Your task to perform on an android device: Do I have any events this weekend? Image 0: 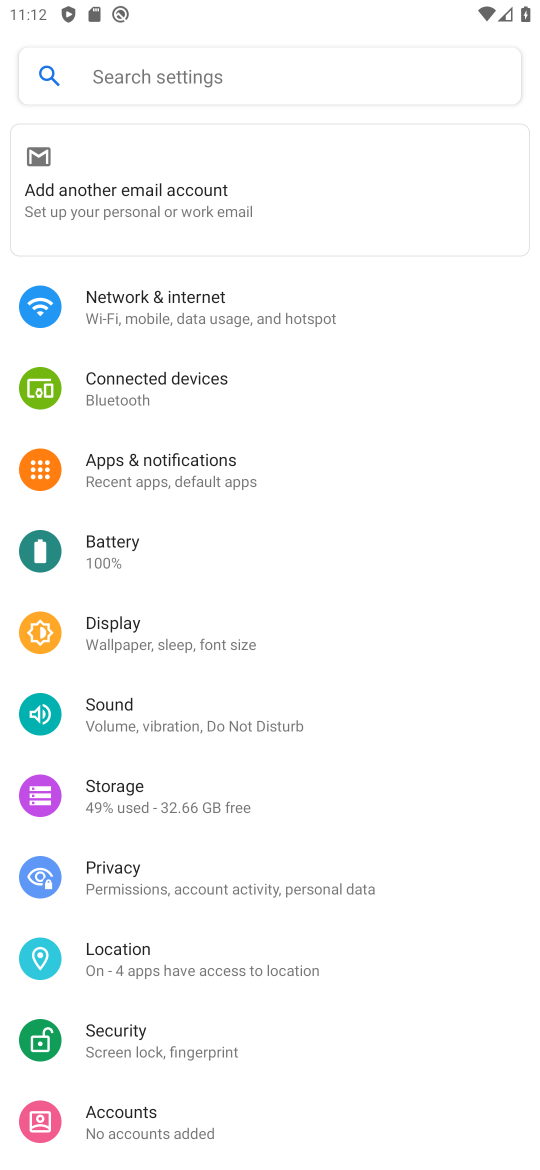
Step 0: press home button
Your task to perform on an android device: Do I have any events this weekend? Image 1: 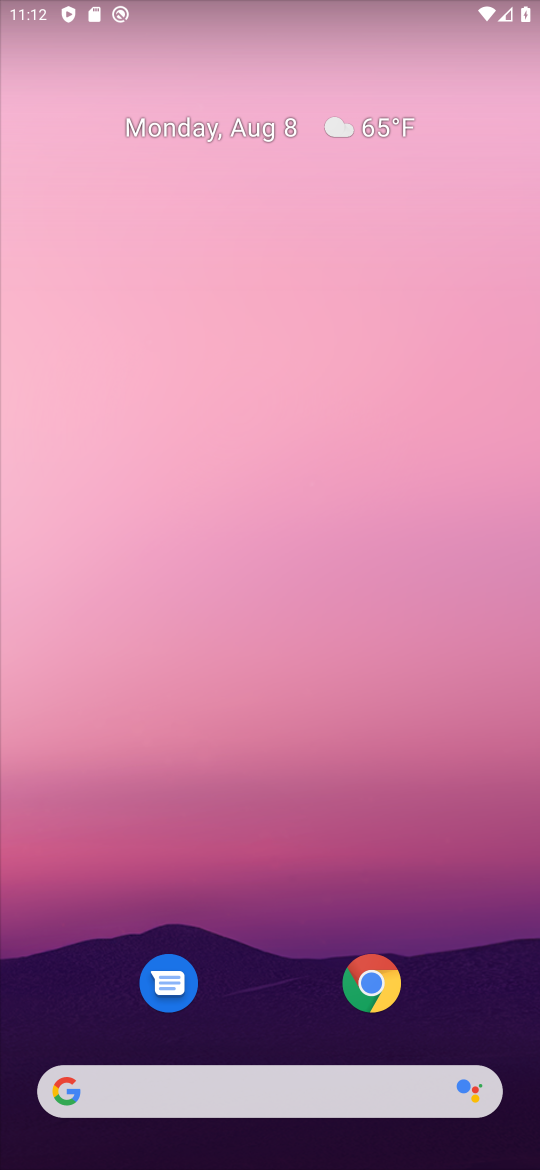
Step 1: drag from (228, 1043) to (193, 212)
Your task to perform on an android device: Do I have any events this weekend? Image 2: 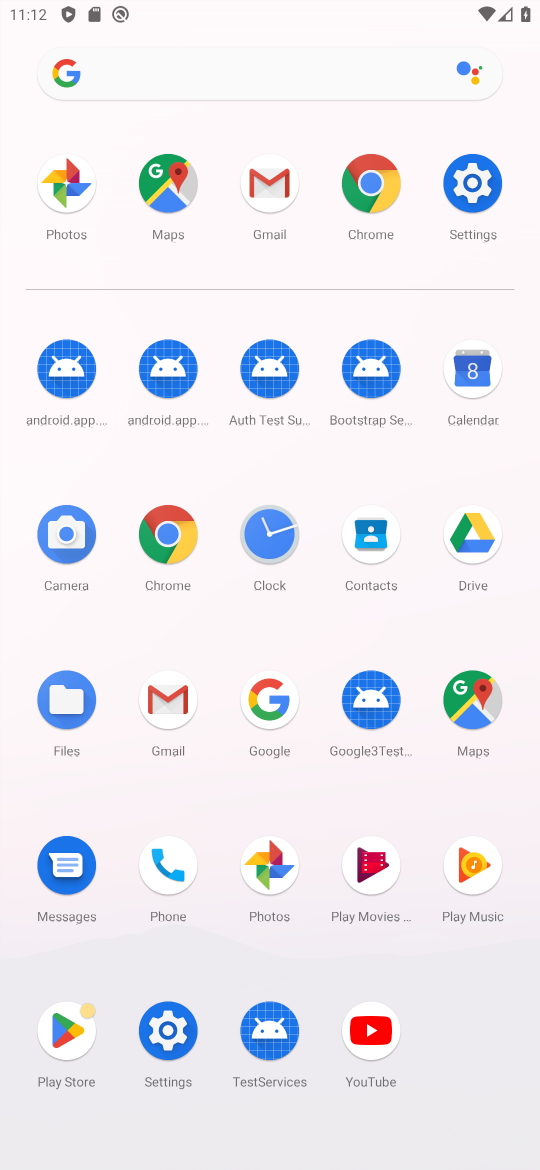
Step 2: click (462, 387)
Your task to perform on an android device: Do I have any events this weekend? Image 3: 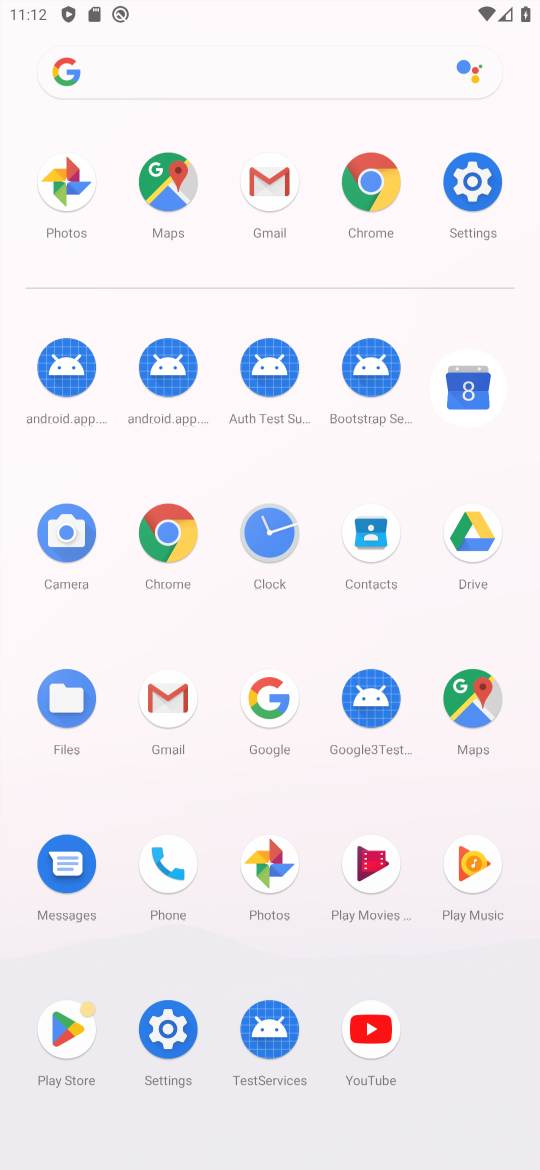
Step 3: task complete